Your task to perform on an android device: check data usage Image 0: 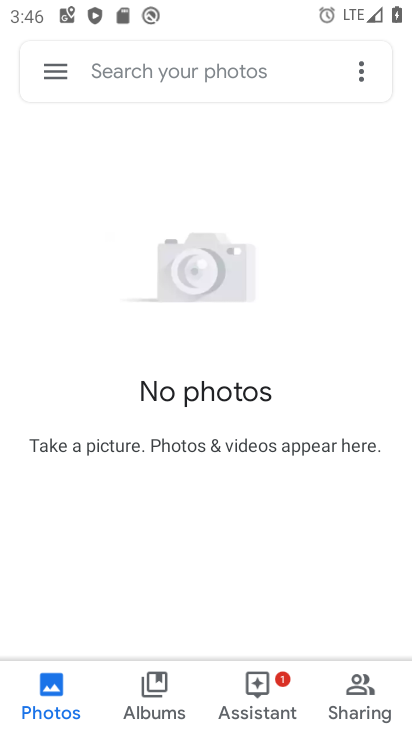
Step 0: press home button
Your task to perform on an android device: check data usage Image 1: 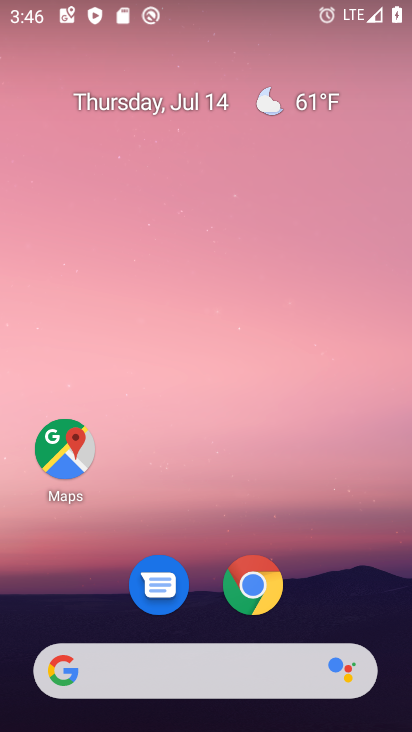
Step 1: drag from (326, 598) to (311, 27)
Your task to perform on an android device: check data usage Image 2: 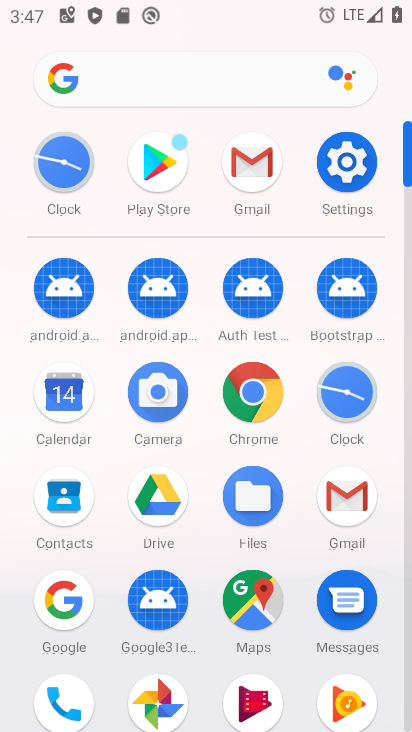
Step 2: click (351, 162)
Your task to perform on an android device: check data usage Image 3: 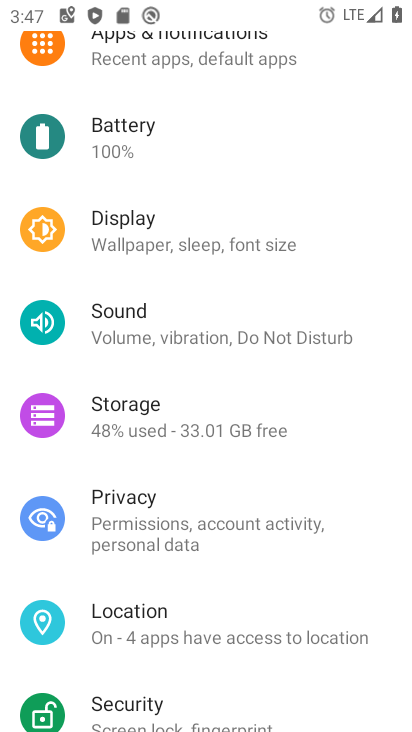
Step 3: drag from (231, 198) to (232, 667)
Your task to perform on an android device: check data usage Image 4: 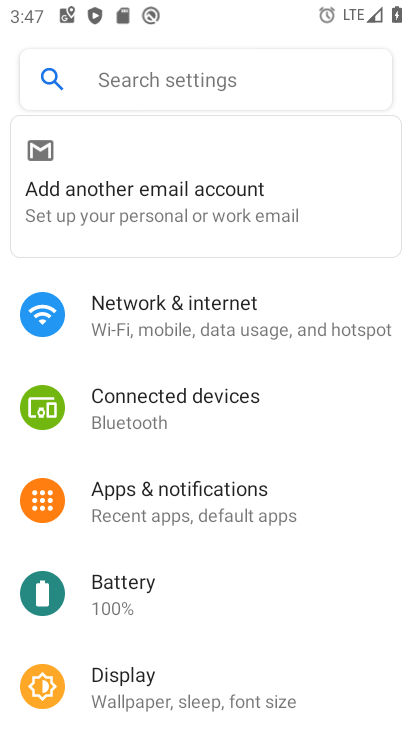
Step 4: drag from (209, 405) to (204, 593)
Your task to perform on an android device: check data usage Image 5: 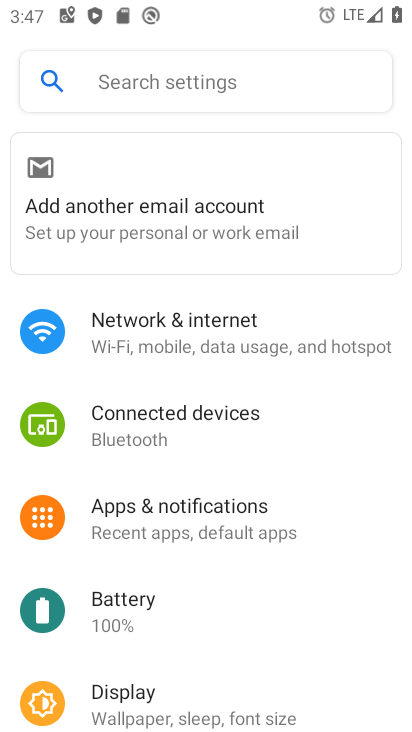
Step 5: click (223, 334)
Your task to perform on an android device: check data usage Image 6: 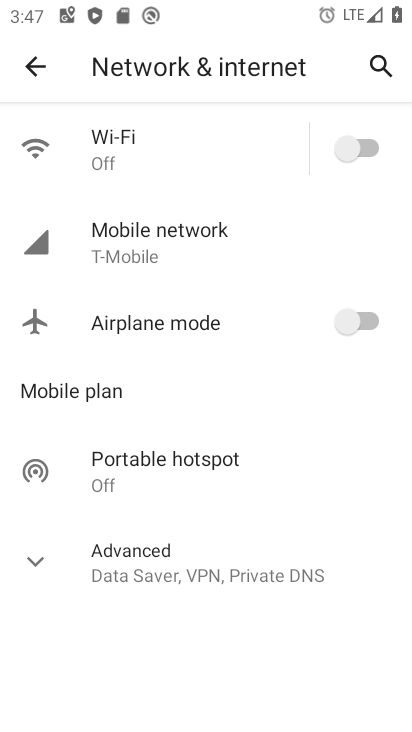
Step 6: click (157, 240)
Your task to perform on an android device: check data usage Image 7: 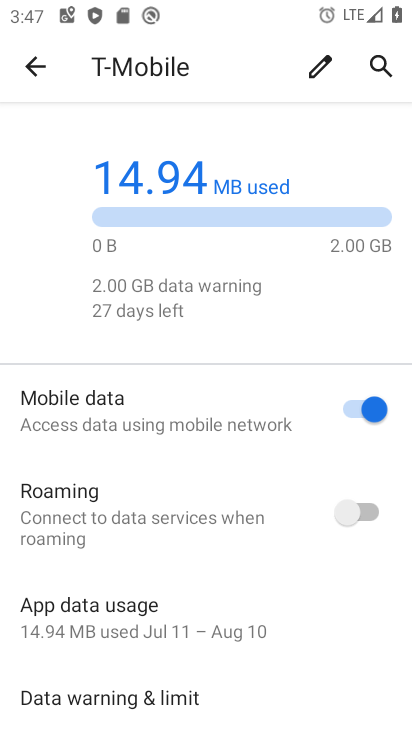
Step 7: task complete